Your task to perform on an android device: toggle data saver in the chrome app Image 0: 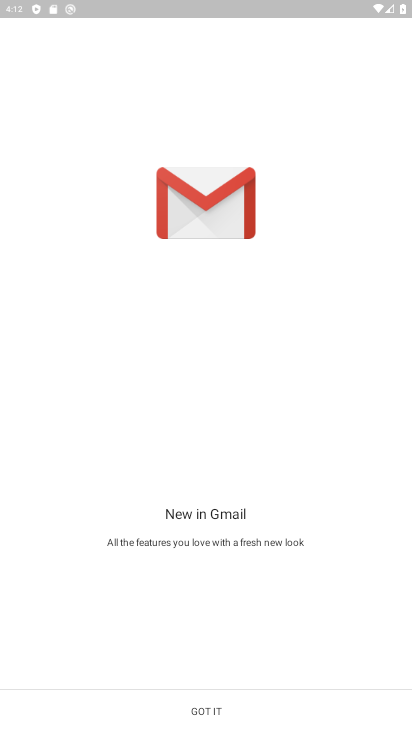
Step 0: press home button
Your task to perform on an android device: toggle data saver in the chrome app Image 1: 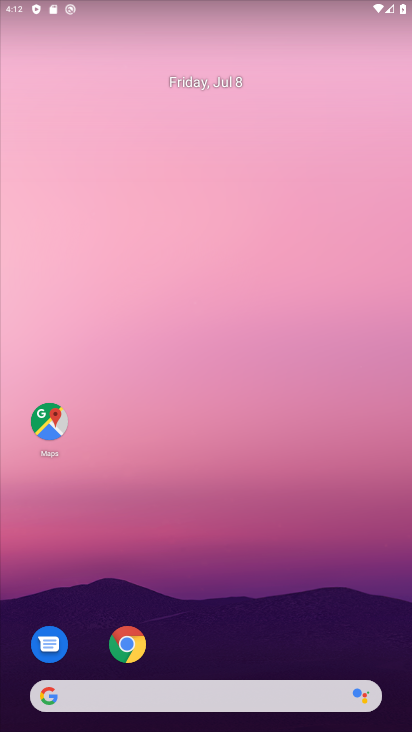
Step 1: click (129, 641)
Your task to perform on an android device: toggle data saver in the chrome app Image 2: 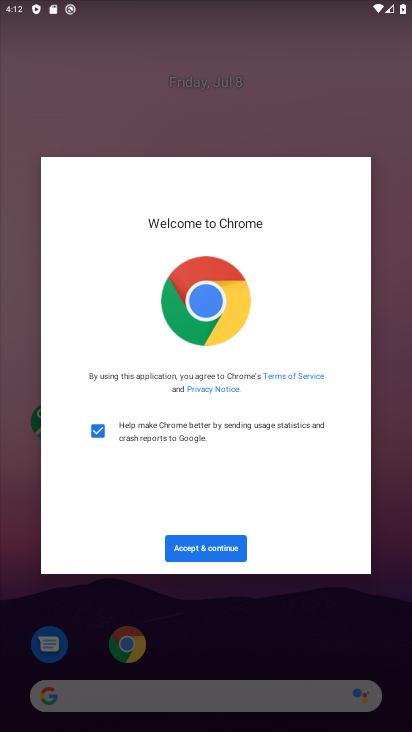
Step 2: click (221, 543)
Your task to perform on an android device: toggle data saver in the chrome app Image 3: 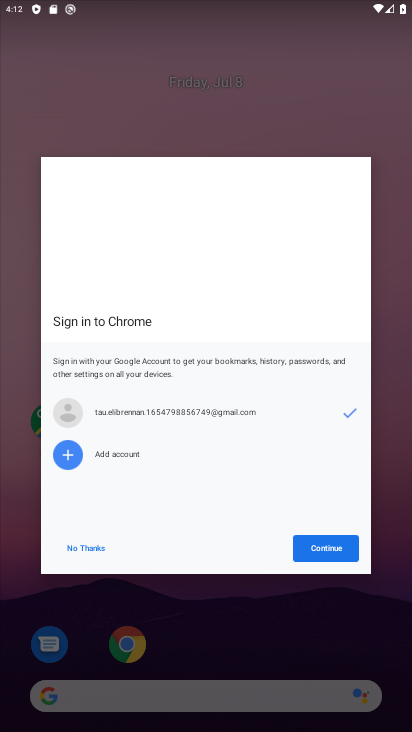
Step 3: click (328, 548)
Your task to perform on an android device: toggle data saver in the chrome app Image 4: 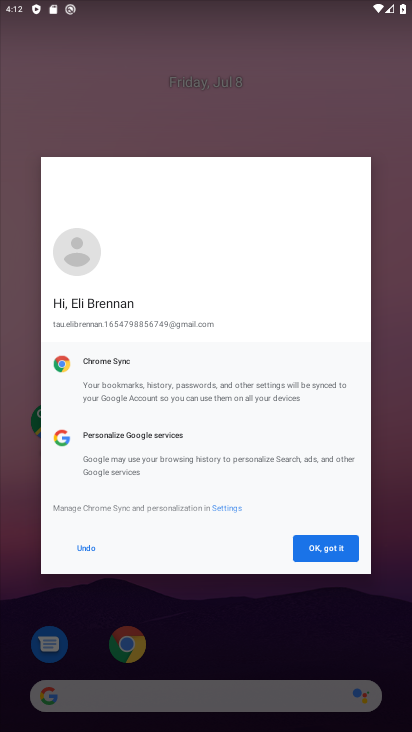
Step 4: click (328, 548)
Your task to perform on an android device: toggle data saver in the chrome app Image 5: 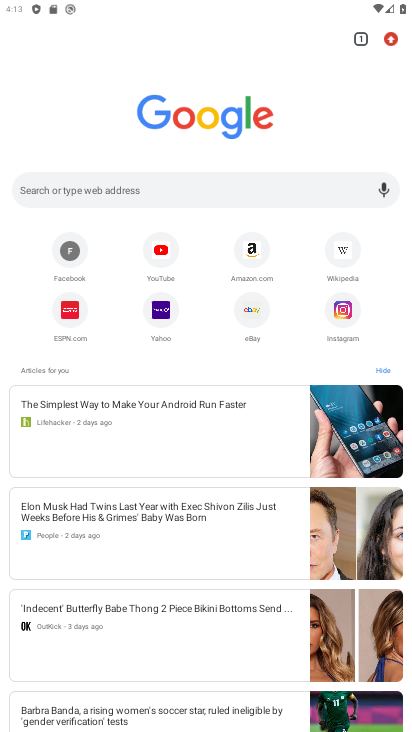
Step 5: click (390, 36)
Your task to perform on an android device: toggle data saver in the chrome app Image 6: 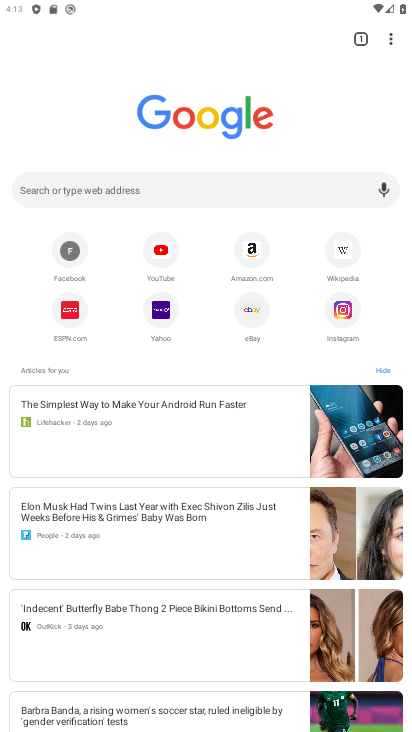
Step 6: click (389, 40)
Your task to perform on an android device: toggle data saver in the chrome app Image 7: 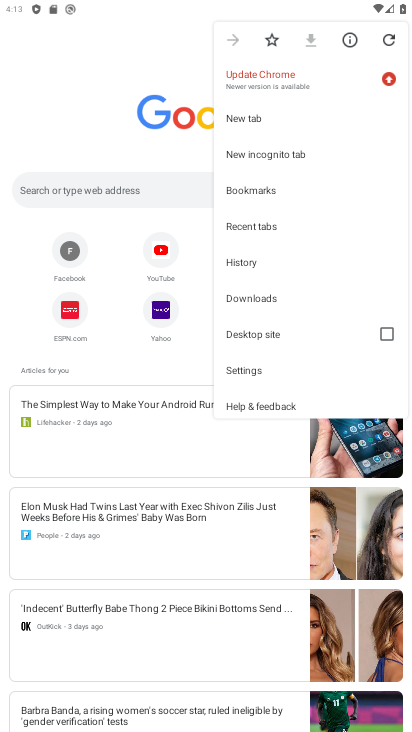
Step 7: click (270, 365)
Your task to perform on an android device: toggle data saver in the chrome app Image 8: 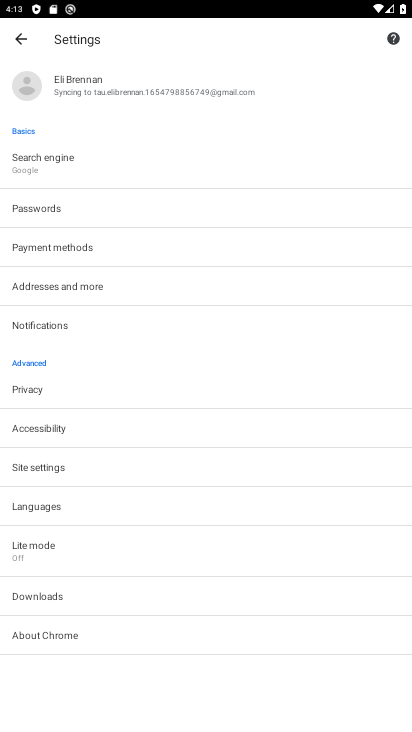
Step 8: click (71, 547)
Your task to perform on an android device: toggle data saver in the chrome app Image 9: 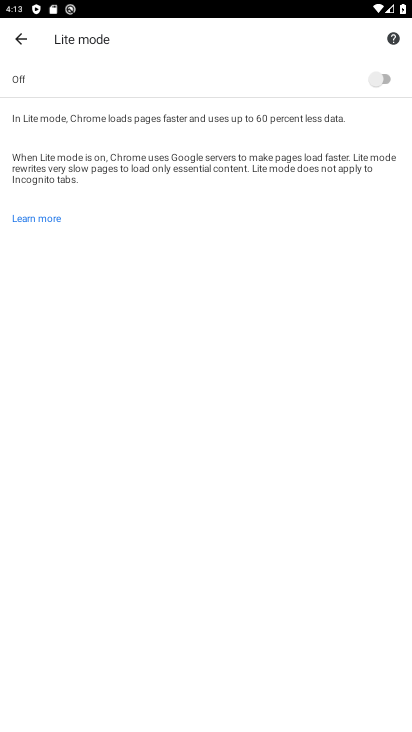
Step 9: click (377, 69)
Your task to perform on an android device: toggle data saver in the chrome app Image 10: 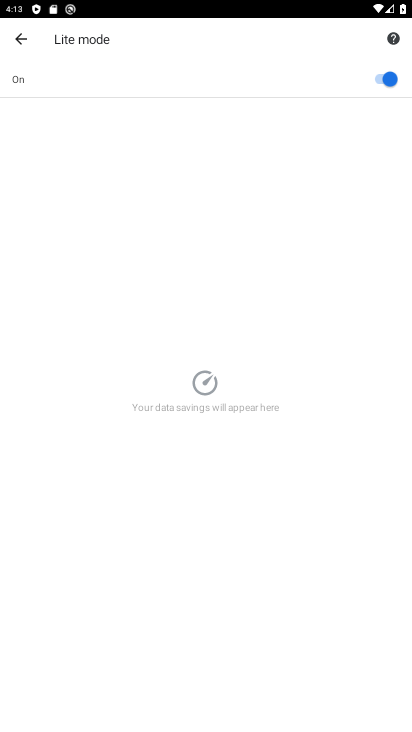
Step 10: task complete